Your task to perform on an android device: Open the web browser Image 0: 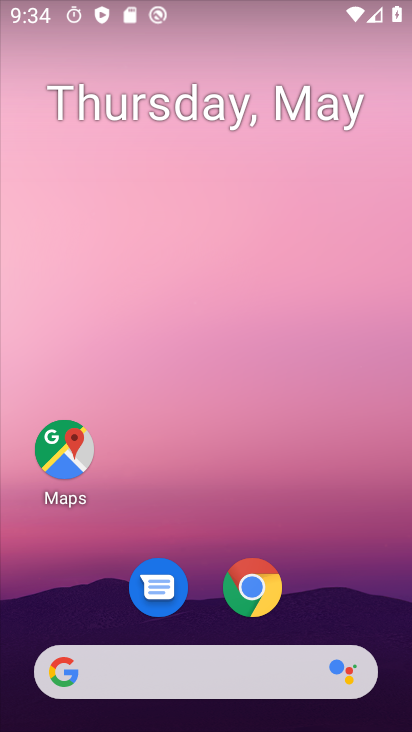
Step 0: click (268, 578)
Your task to perform on an android device: Open the web browser Image 1: 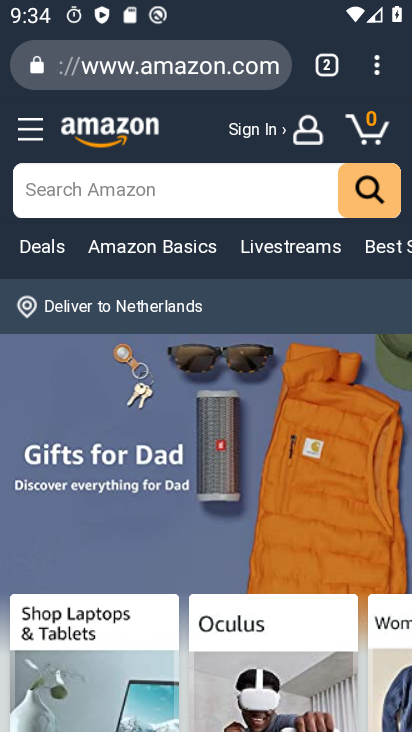
Step 1: task complete